Your task to perform on an android device: open a bookmark in the chrome app Image 0: 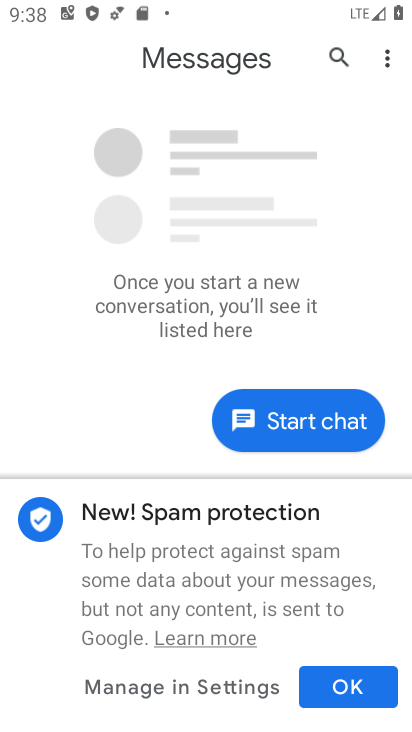
Step 0: press home button
Your task to perform on an android device: open a bookmark in the chrome app Image 1: 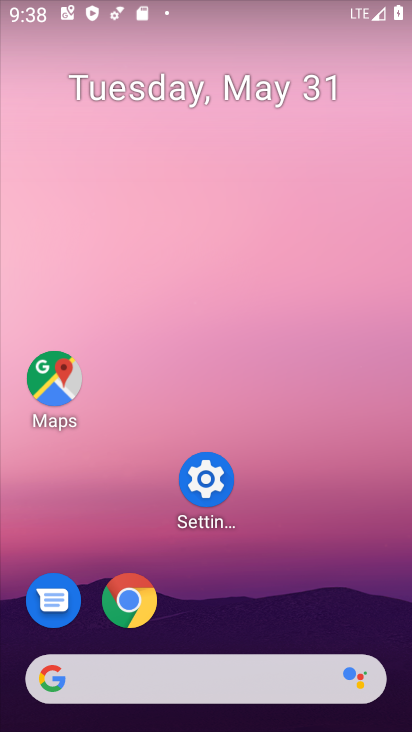
Step 1: drag from (225, 716) to (244, 374)
Your task to perform on an android device: open a bookmark in the chrome app Image 2: 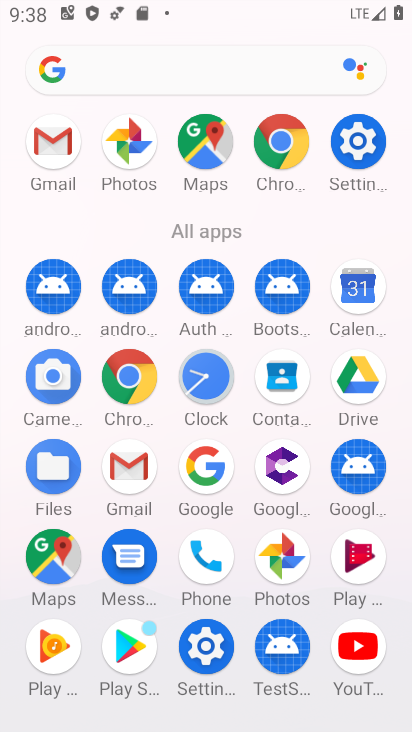
Step 2: click (274, 142)
Your task to perform on an android device: open a bookmark in the chrome app Image 3: 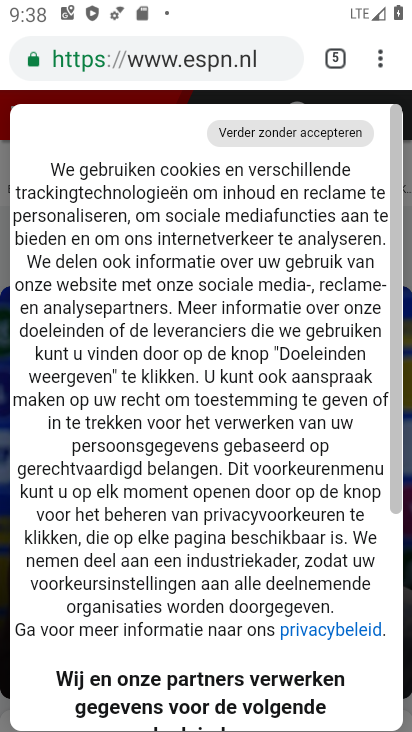
Step 3: click (371, 57)
Your task to perform on an android device: open a bookmark in the chrome app Image 4: 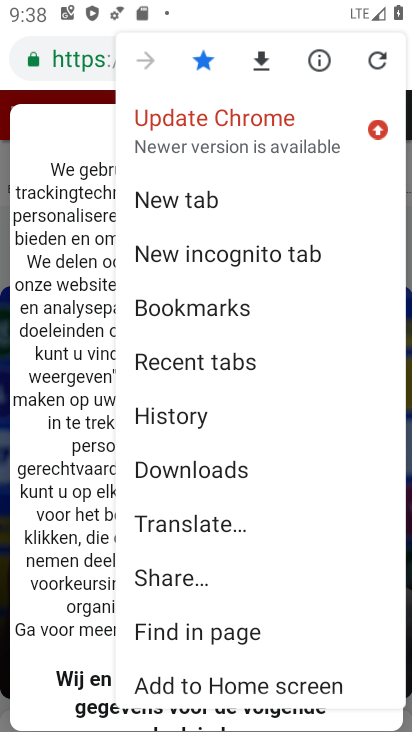
Step 4: click (176, 304)
Your task to perform on an android device: open a bookmark in the chrome app Image 5: 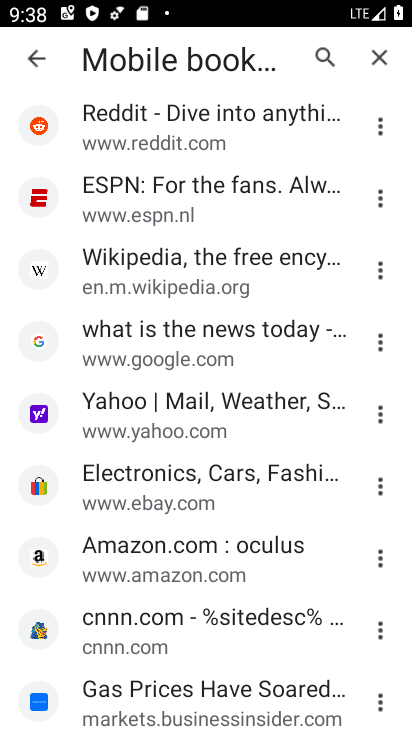
Step 5: task complete